Your task to perform on an android device: Turn off the flashlight Image 0: 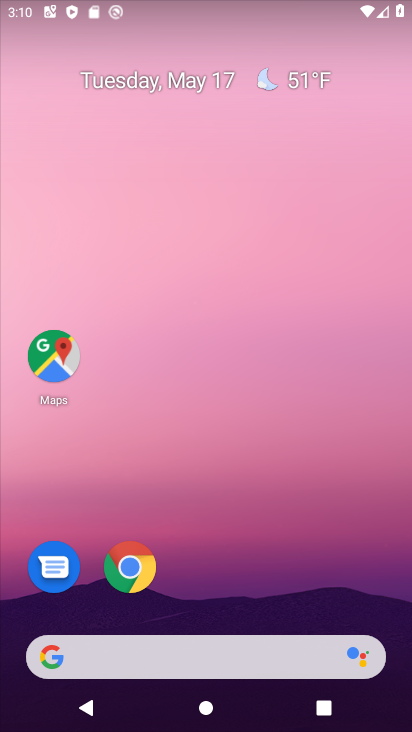
Step 0: drag from (113, 18) to (85, 616)
Your task to perform on an android device: Turn off the flashlight Image 1: 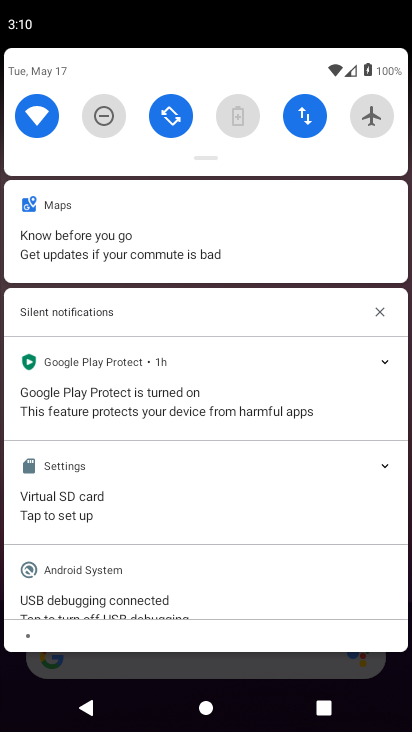
Step 1: task complete